Your task to perform on an android device: turn on location history Image 0: 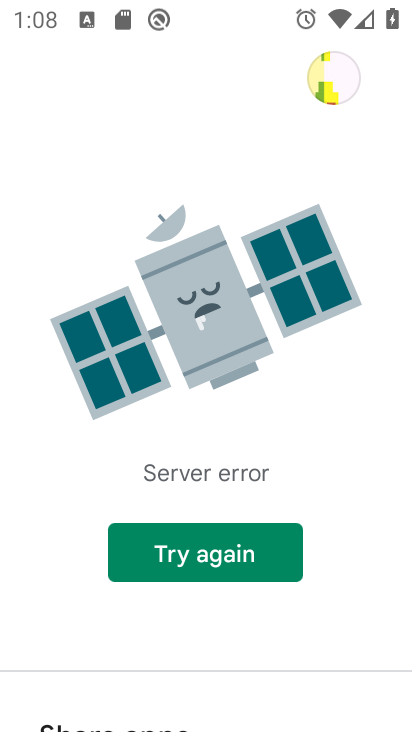
Step 0: press home button
Your task to perform on an android device: turn on location history Image 1: 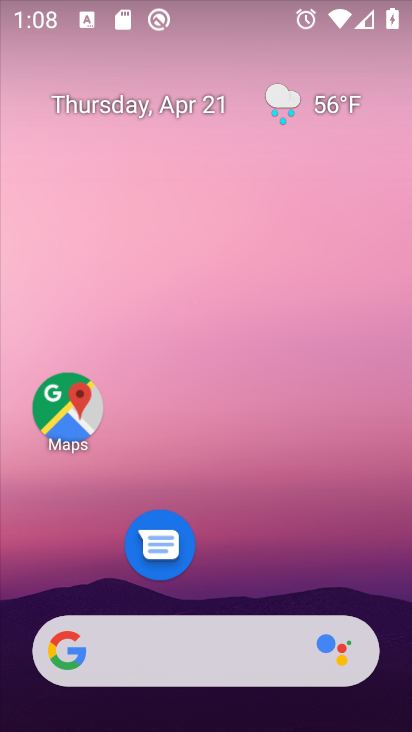
Step 1: drag from (224, 646) to (357, 252)
Your task to perform on an android device: turn on location history Image 2: 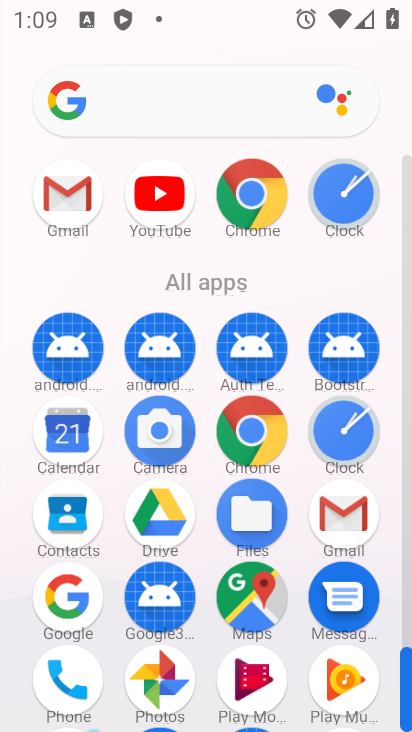
Step 2: drag from (404, 672) to (398, 620)
Your task to perform on an android device: turn on location history Image 3: 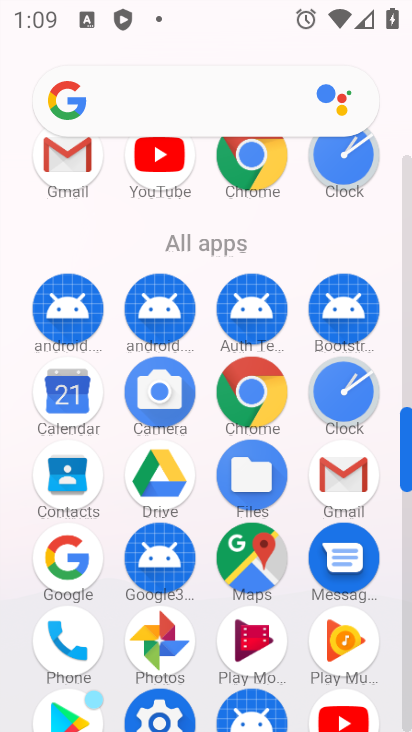
Step 3: drag from (284, 671) to (323, 294)
Your task to perform on an android device: turn on location history Image 4: 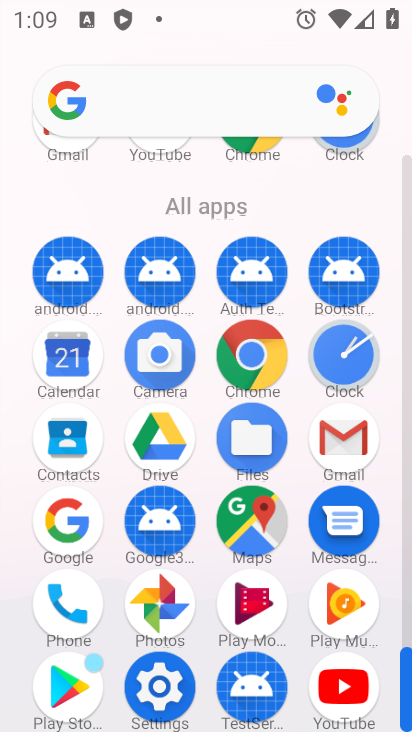
Step 4: click (168, 682)
Your task to perform on an android device: turn on location history Image 5: 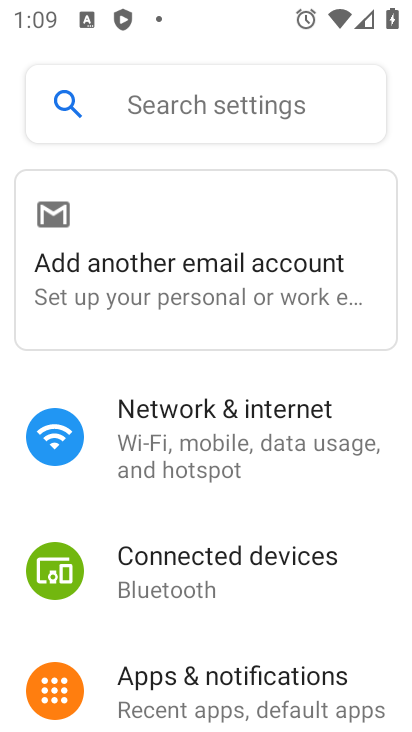
Step 5: drag from (210, 595) to (317, 205)
Your task to perform on an android device: turn on location history Image 6: 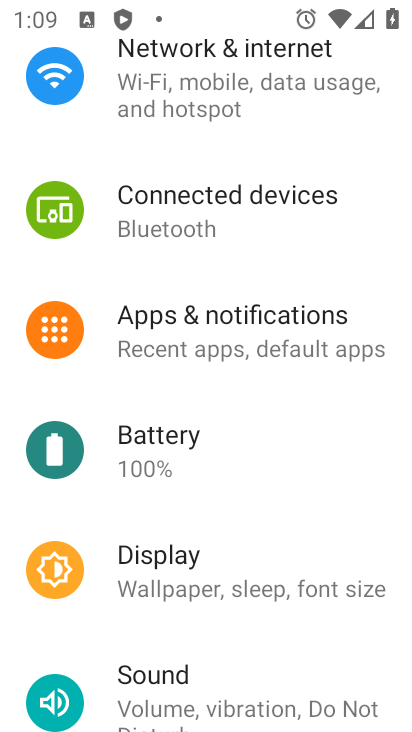
Step 6: drag from (242, 569) to (323, 197)
Your task to perform on an android device: turn on location history Image 7: 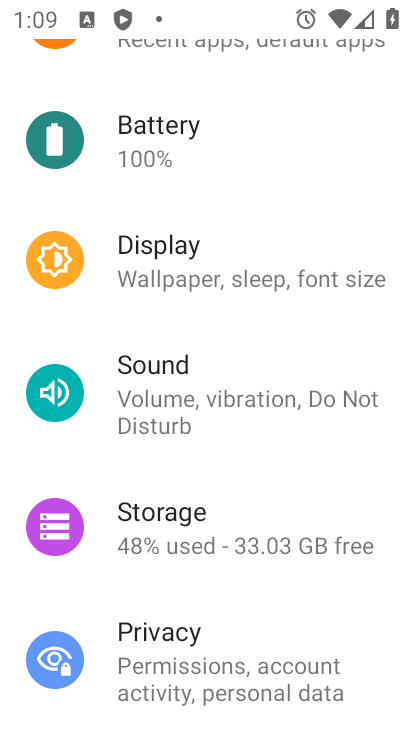
Step 7: drag from (276, 478) to (360, 70)
Your task to perform on an android device: turn on location history Image 8: 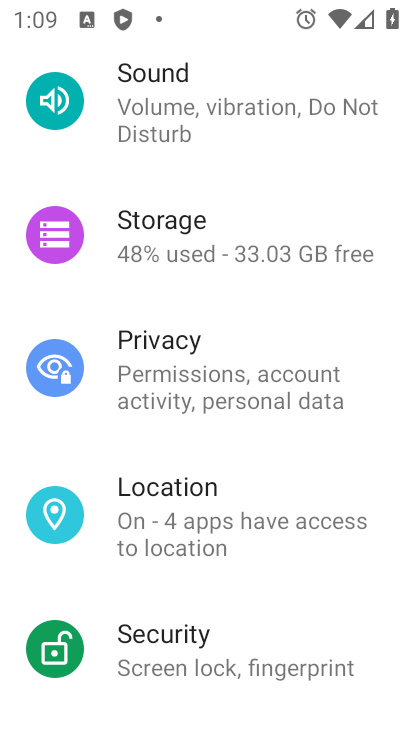
Step 8: click (248, 524)
Your task to perform on an android device: turn on location history Image 9: 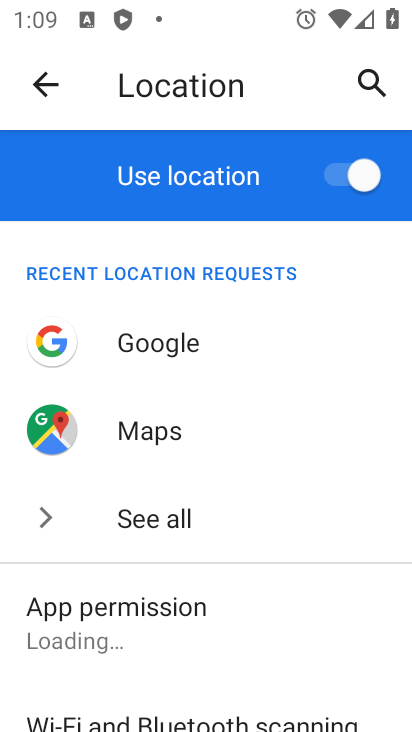
Step 9: drag from (261, 617) to (288, 234)
Your task to perform on an android device: turn on location history Image 10: 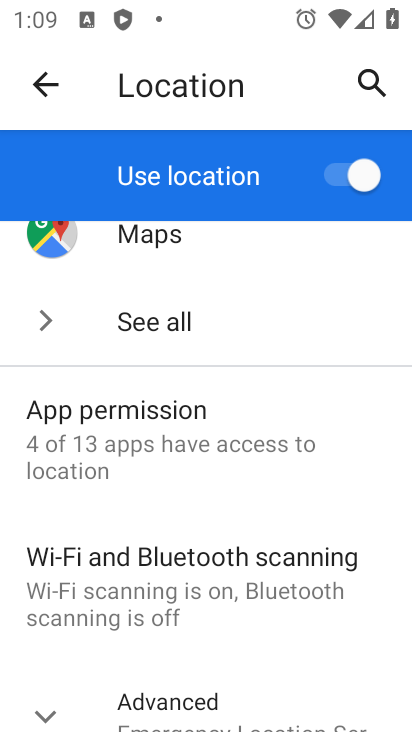
Step 10: drag from (249, 591) to (268, 301)
Your task to perform on an android device: turn on location history Image 11: 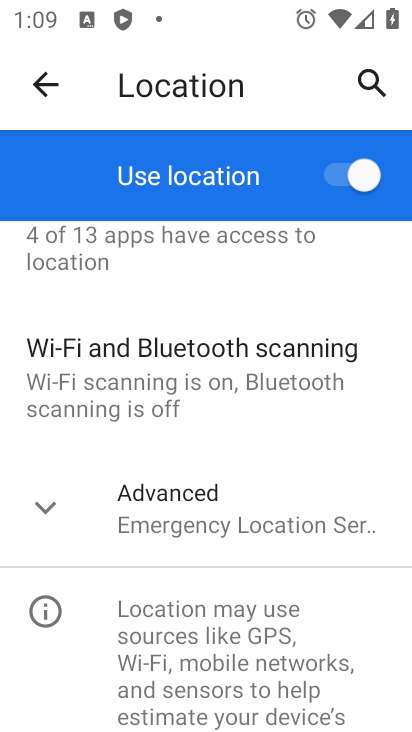
Step 11: click (198, 511)
Your task to perform on an android device: turn on location history Image 12: 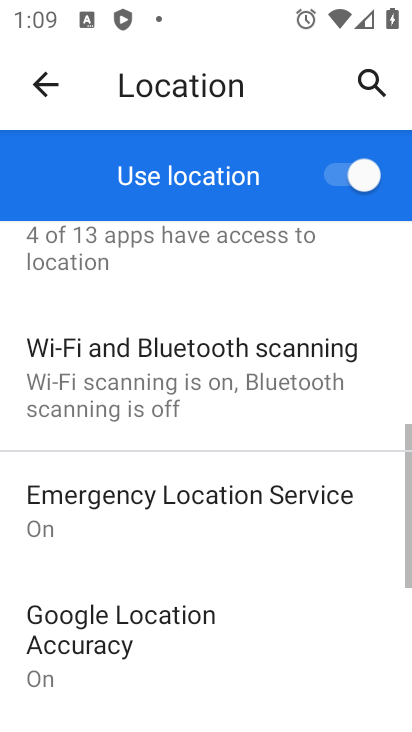
Step 12: drag from (183, 567) to (229, 206)
Your task to perform on an android device: turn on location history Image 13: 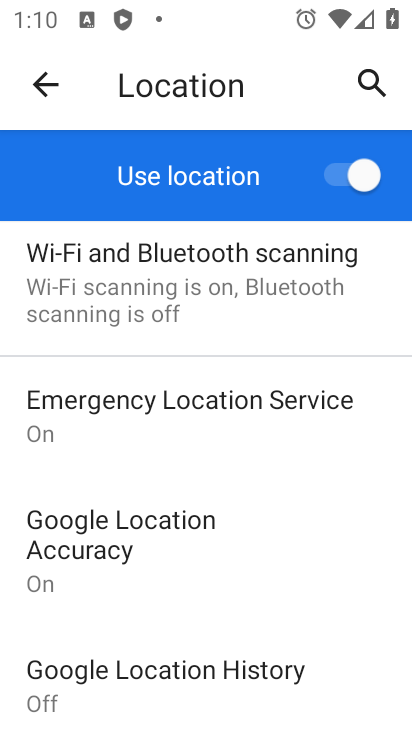
Step 13: click (256, 694)
Your task to perform on an android device: turn on location history Image 14: 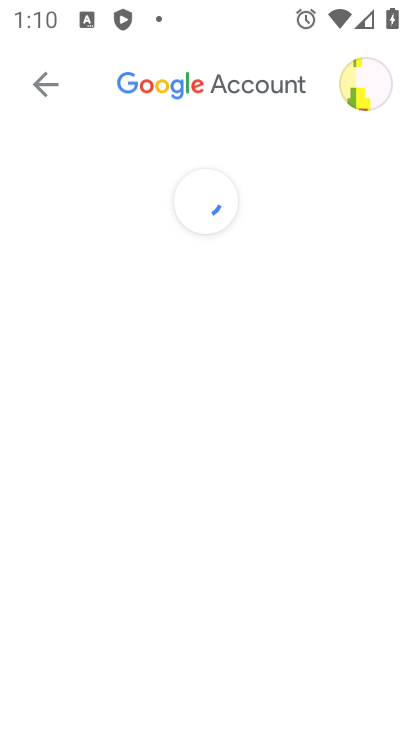
Step 14: drag from (322, 588) to (128, 255)
Your task to perform on an android device: turn on location history Image 15: 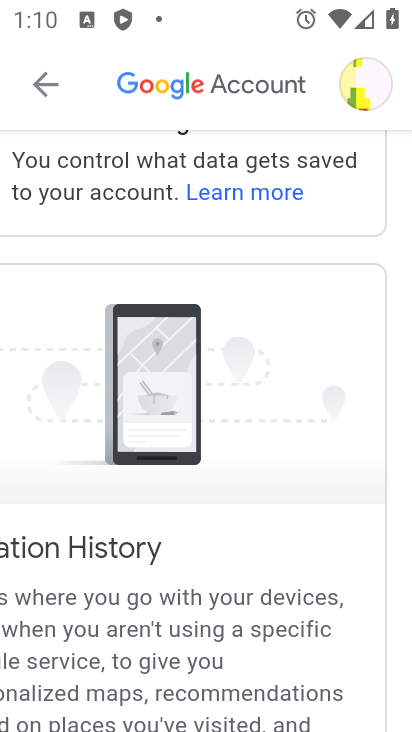
Step 15: drag from (264, 595) to (177, 180)
Your task to perform on an android device: turn on location history Image 16: 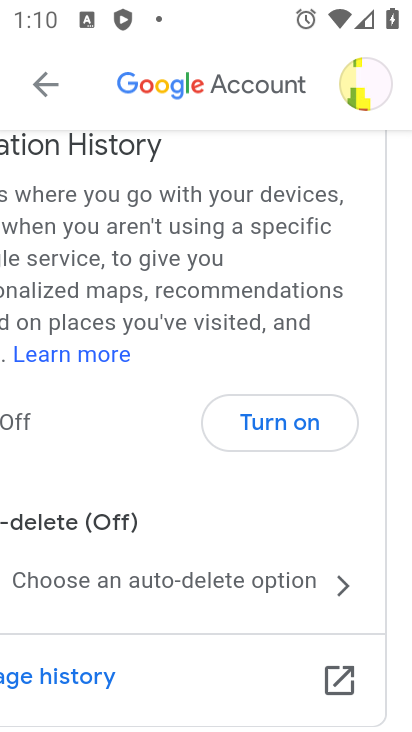
Step 16: click (290, 423)
Your task to perform on an android device: turn on location history Image 17: 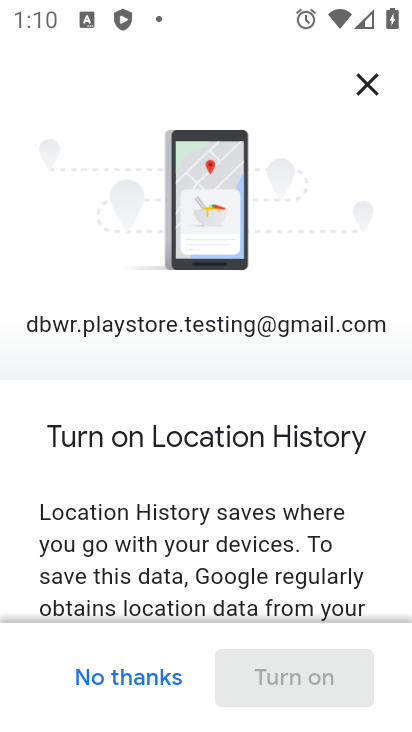
Step 17: drag from (272, 388) to (298, 221)
Your task to perform on an android device: turn on location history Image 18: 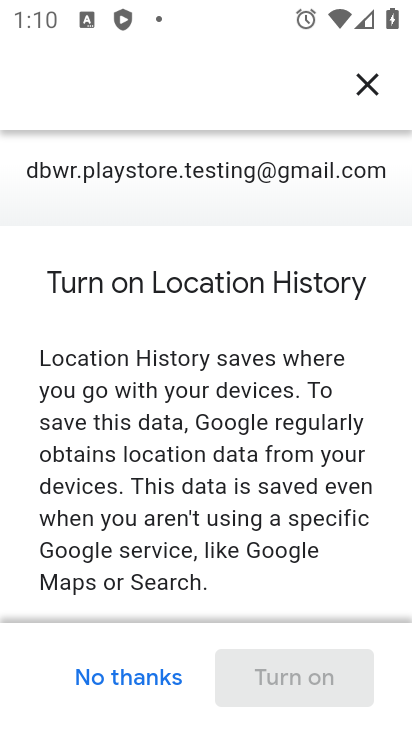
Step 18: drag from (255, 539) to (199, 14)
Your task to perform on an android device: turn on location history Image 19: 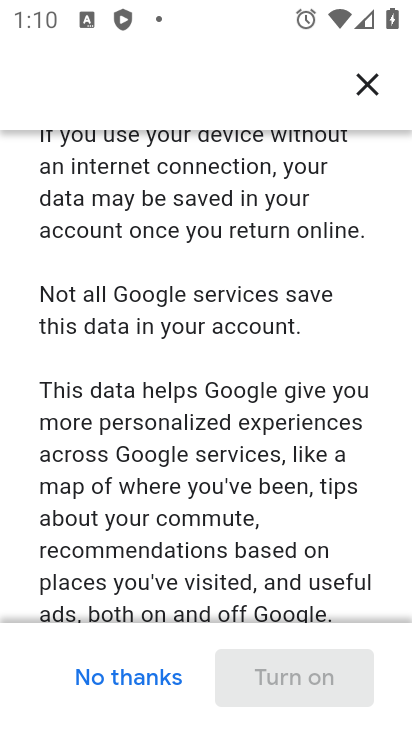
Step 19: drag from (254, 461) to (235, 101)
Your task to perform on an android device: turn on location history Image 20: 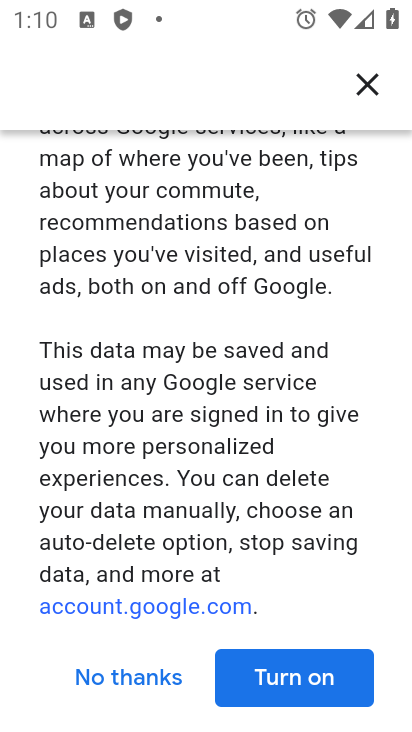
Step 20: click (299, 674)
Your task to perform on an android device: turn on location history Image 21: 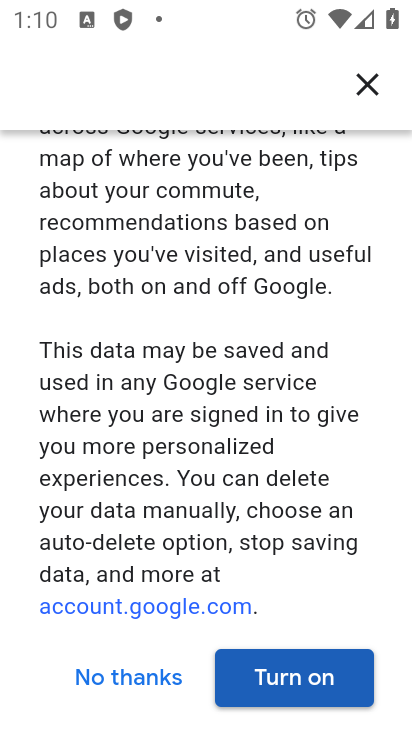
Step 21: click (301, 680)
Your task to perform on an android device: turn on location history Image 22: 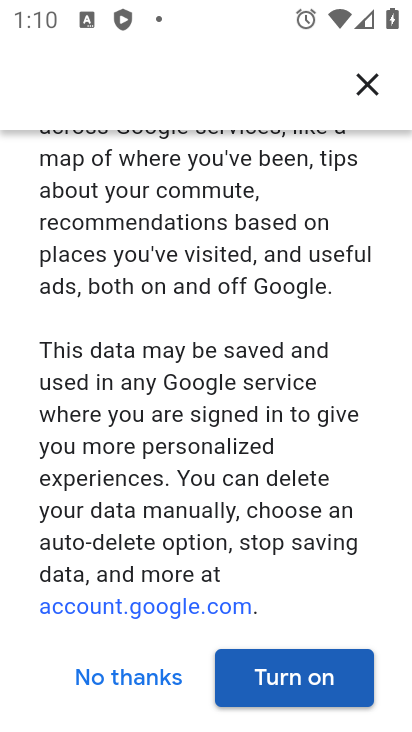
Step 22: click (293, 667)
Your task to perform on an android device: turn on location history Image 23: 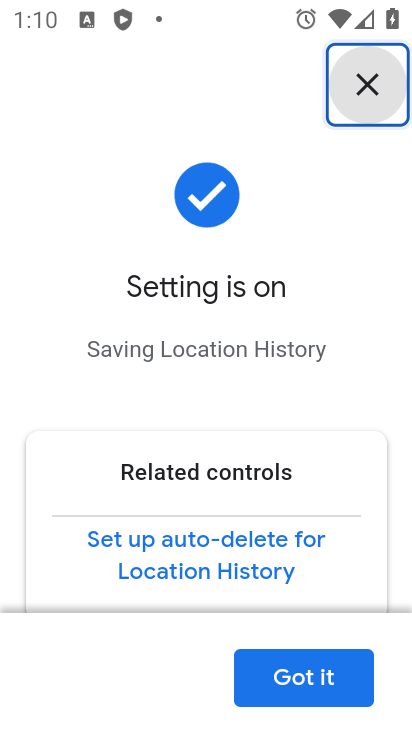
Step 23: click (296, 685)
Your task to perform on an android device: turn on location history Image 24: 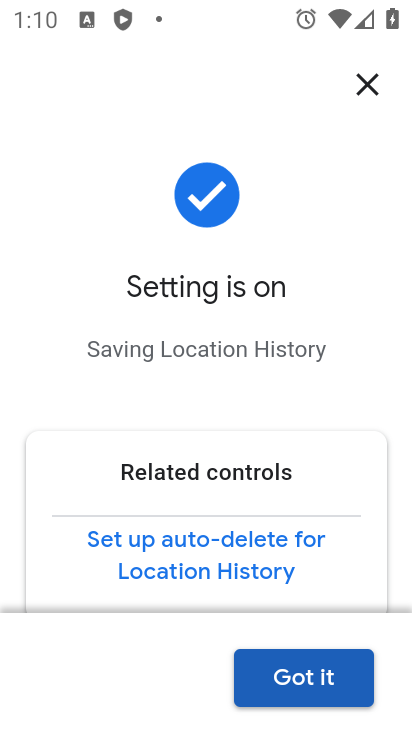
Step 24: click (284, 670)
Your task to perform on an android device: turn on location history Image 25: 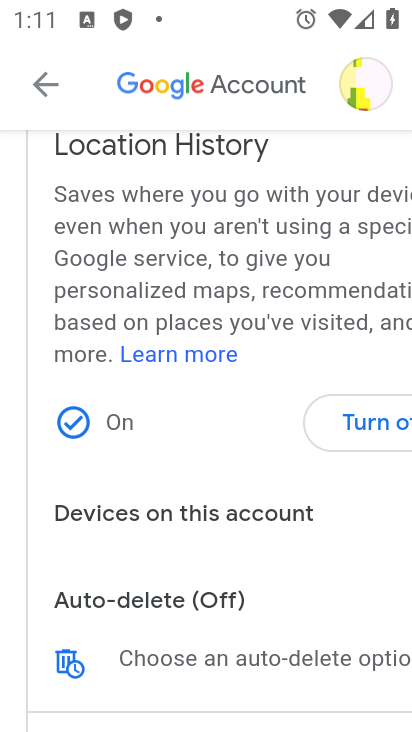
Step 25: task complete